Your task to perform on an android device: Search for good Italian restaurants on Maps Image 0: 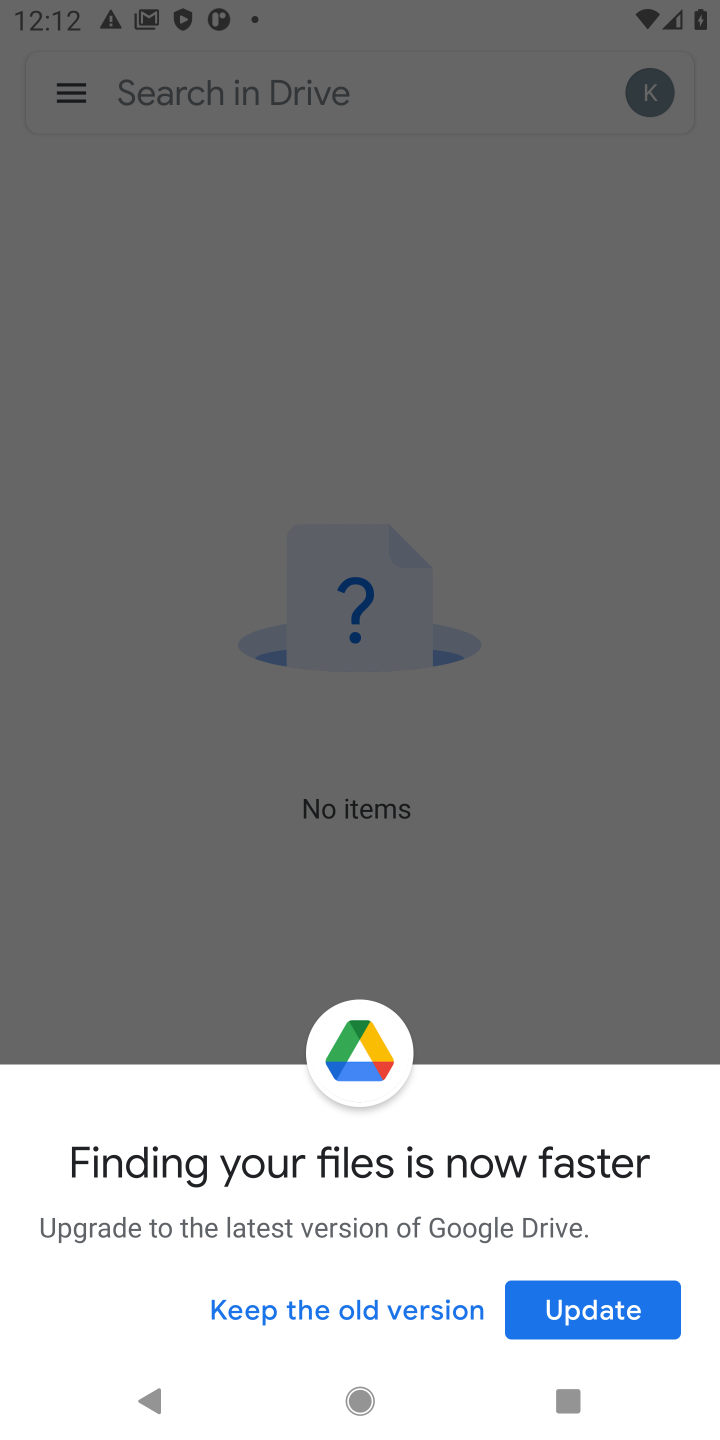
Step 0: press home button
Your task to perform on an android device: Search for good Italian restaurants on Maps Image 1: 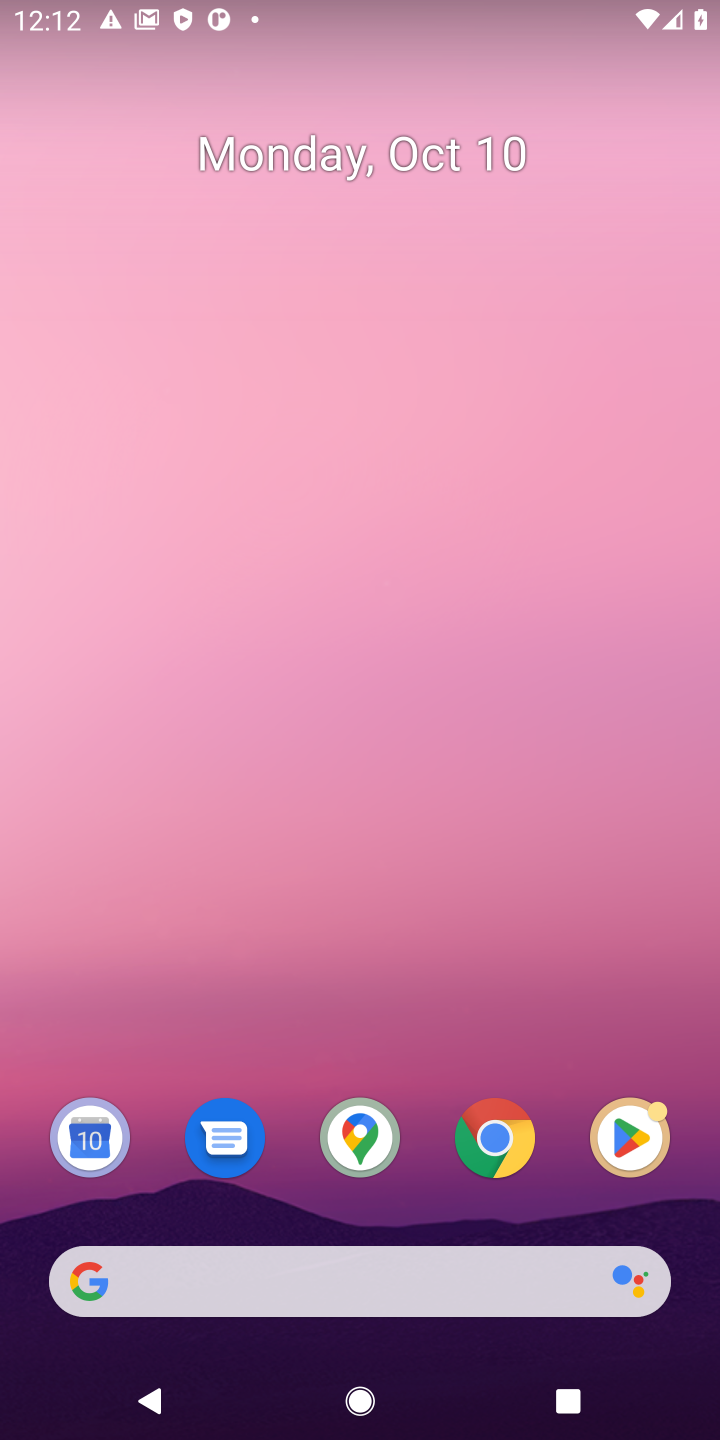
Step 1: click (330, 1141)
Your task to perform on an android device: Search for good Italian restaurants on Maps Image 2: 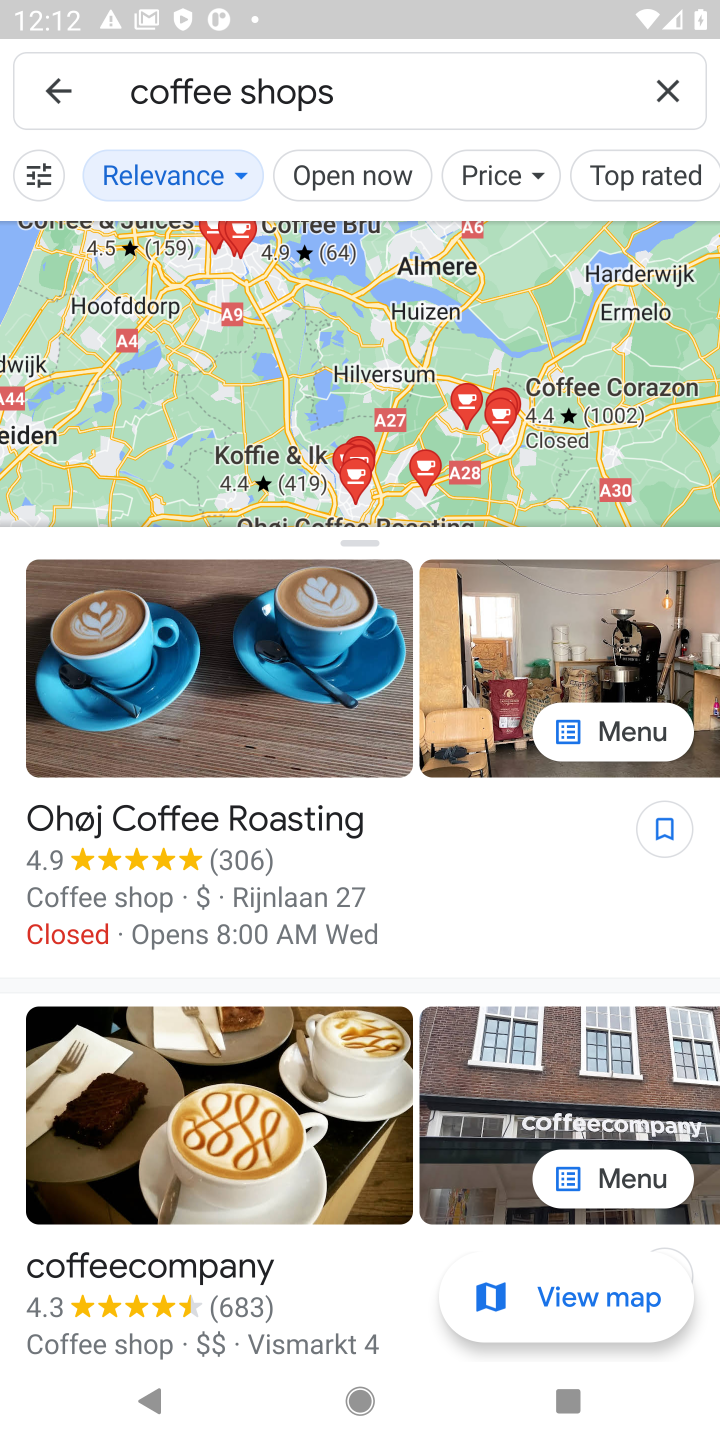
Step 2: click (673, 99)
Your task to perform on an android device: Search for good Italian restaurants on Maps Image 3: 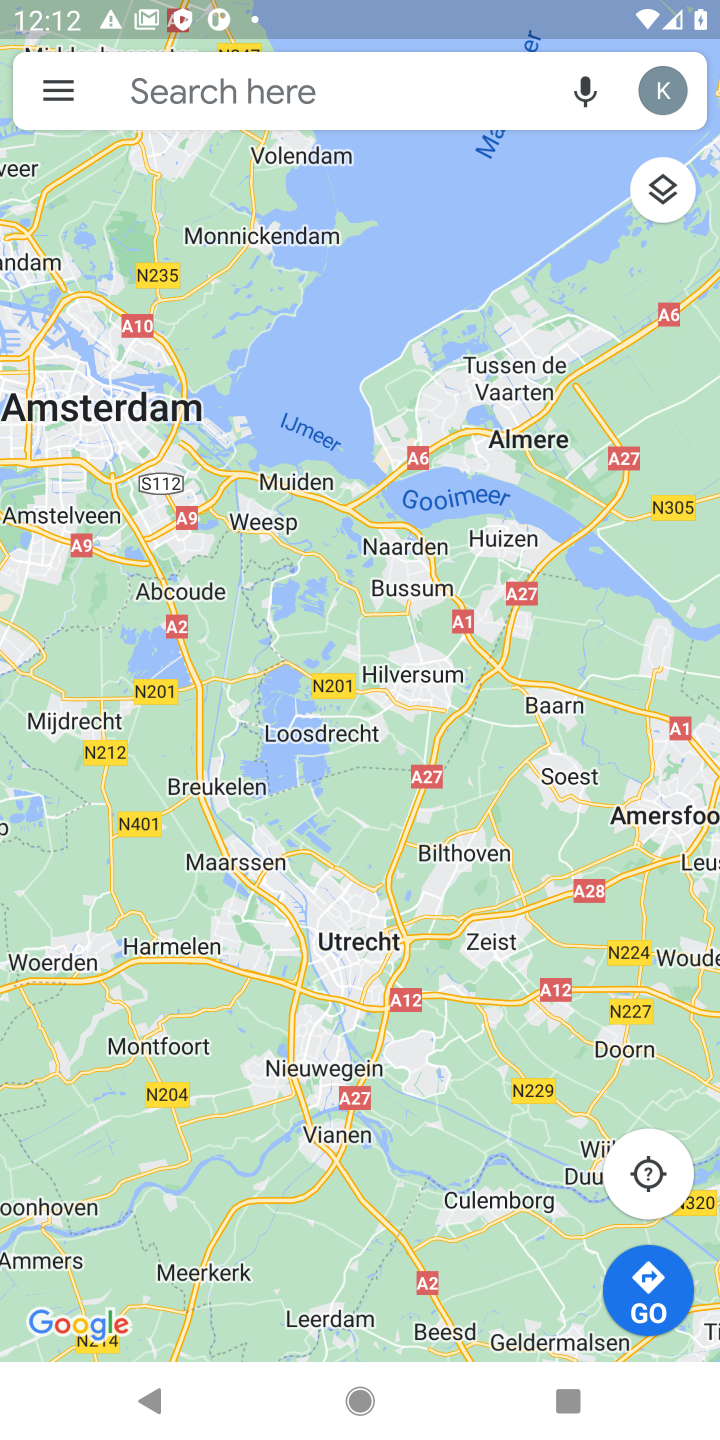
Step 3: click (361, 89)
Your task to perform on an android device: Search for good Italian restaurants on Maps Image 4: 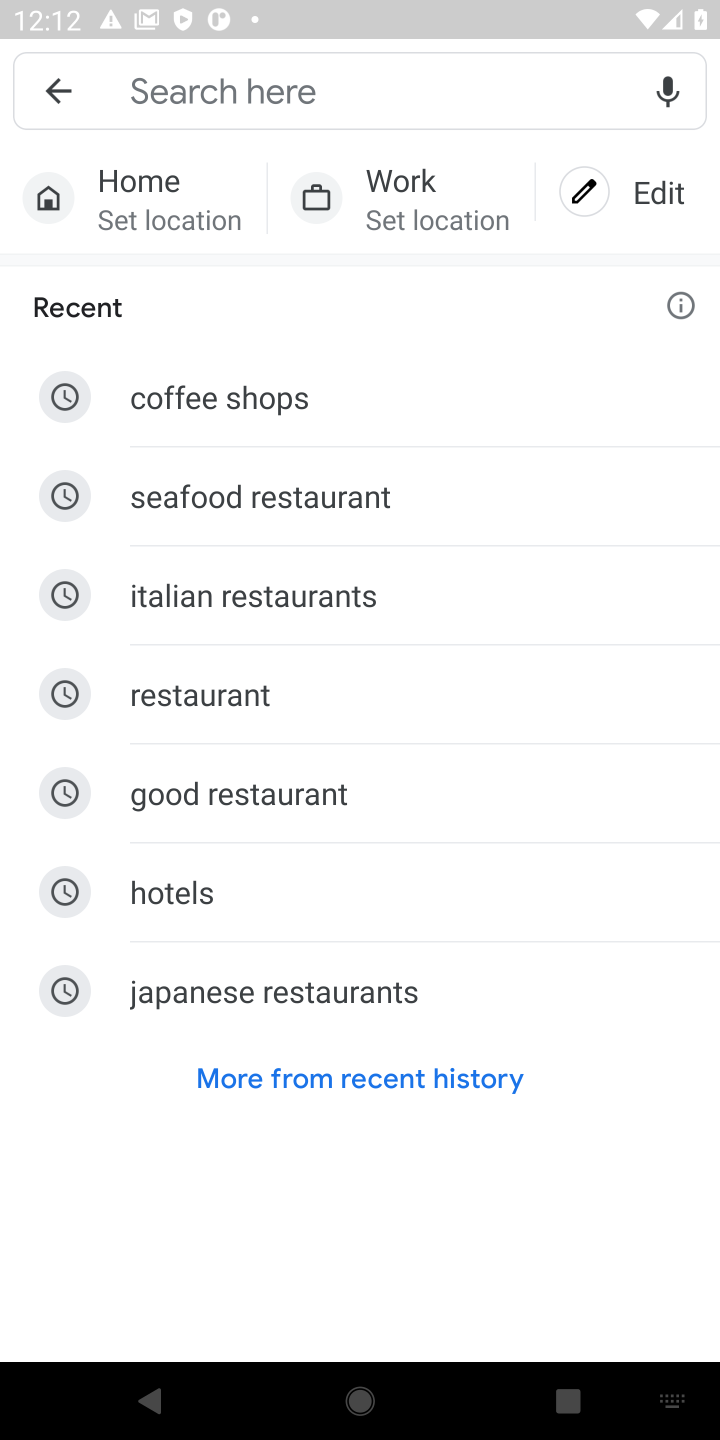
Step 4: click (368, 605)
Your task to perform on an android device: Search for good Italian restaurants on Maps Image 5: 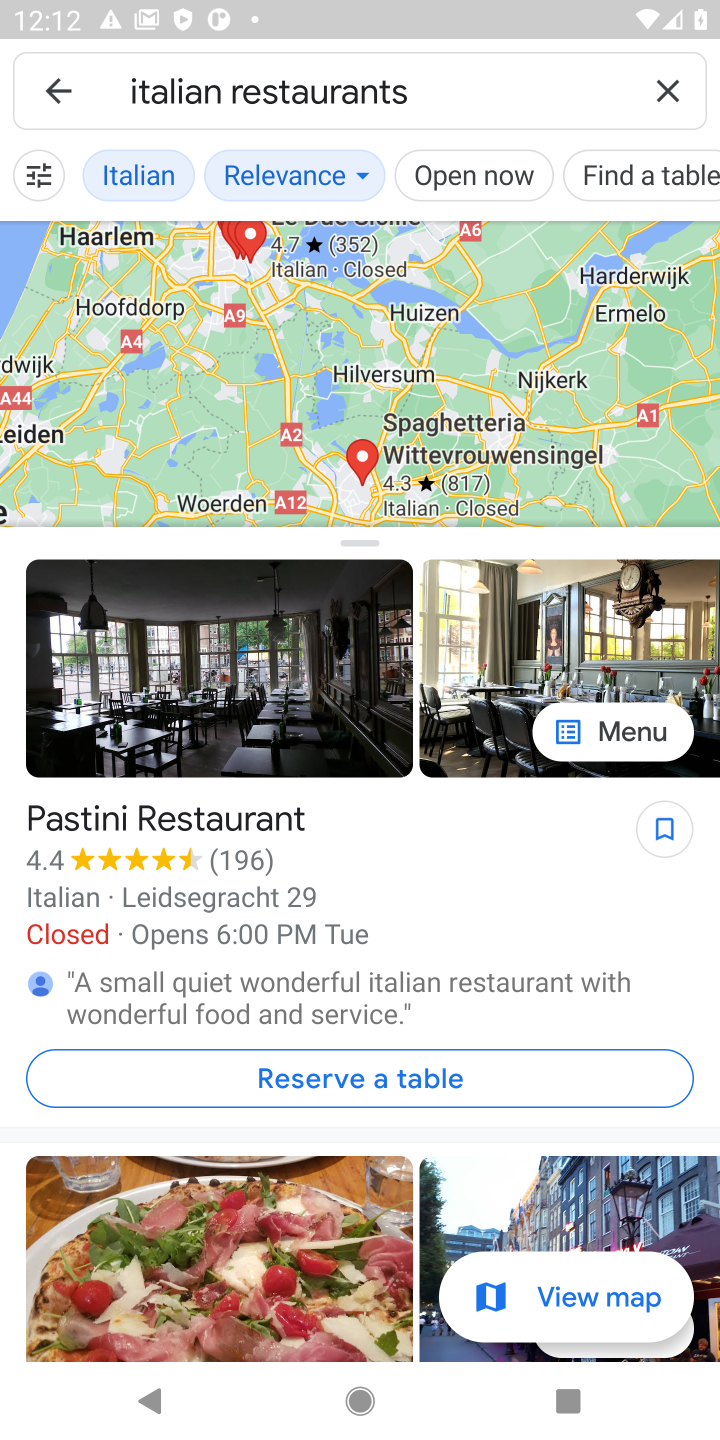
Step 5: task complete